Your task to perform on an android device: toggle notifications settings in the gmail app Image 0: 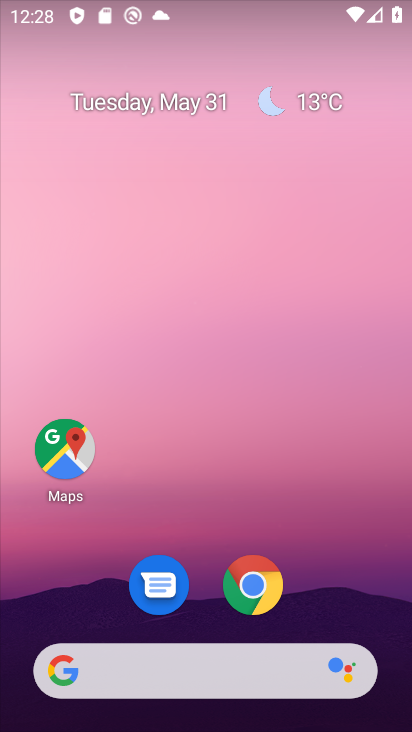
Step 0: drag from (259, 498) to (232, 56)
Your task to perform on an android device: toggle notifications settings in the gmail app Image 1: 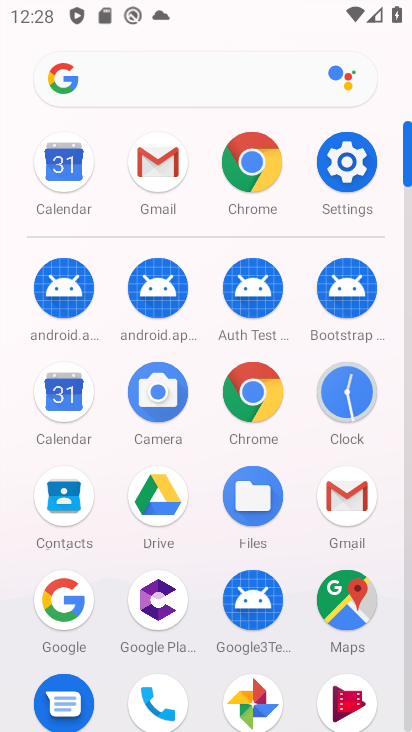
Step 1: click (170, 174)
Your task to perform on an android device: toggle notifications settings in the gmail app Image 2: 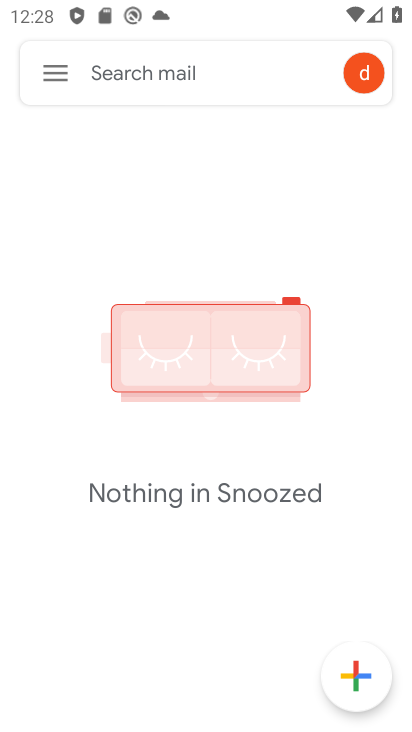
Step 2: click (62, 72)
Your task to perform on an android device: toggle notifications settings in the gmail app Image 3: 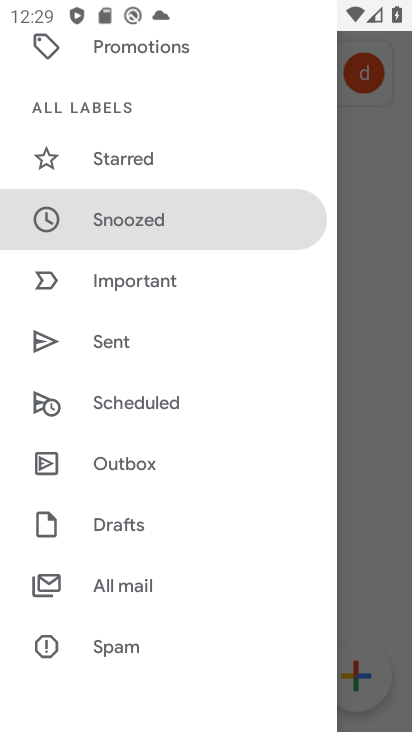
Step 3: drag from (144, 566) to (143, 317)
Your task to perform on an android device: toggle notifications settings in the gmail app Image 4: 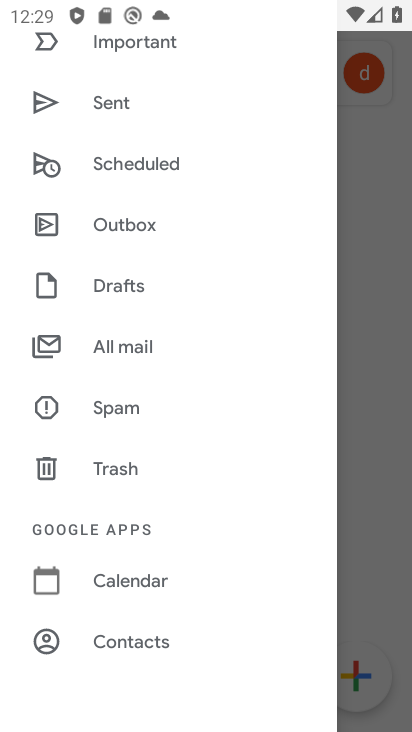
Step 4: drag from (155, 402) to (158, 252)
Your task to perform on an android device: toggle notifications settings in the gmail app Image 5: 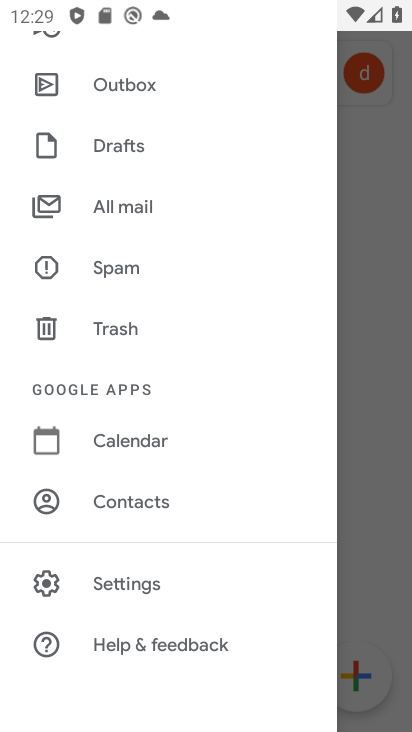
Step 5: click (175, 568)
Your task to perform on an android device: toggle notifications settings in the gmail app Image 6: 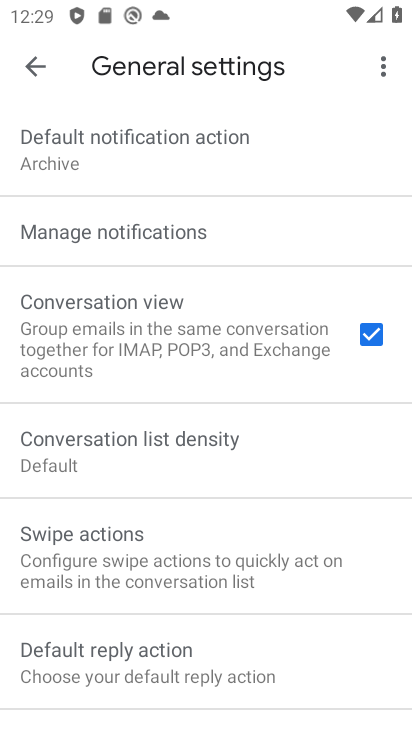
Step 6: click (228, 236)
Your task to perform on an android device: toggle notifications settings in the gmail app Image 7: 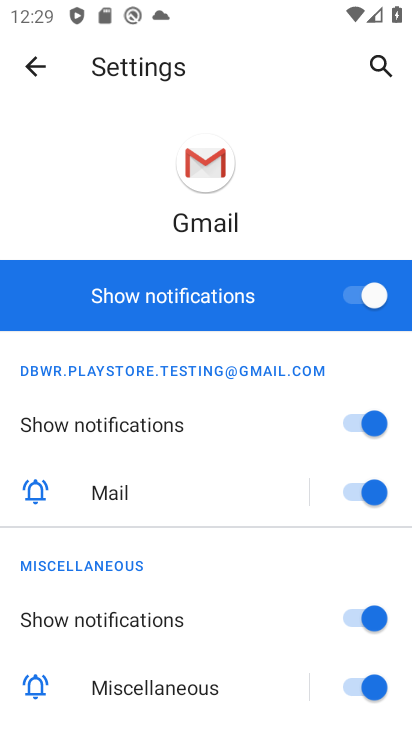
Step 7: click (357, 291)
Your task to perform on an android device: toggle notifications settings in the gmail app Image 8: 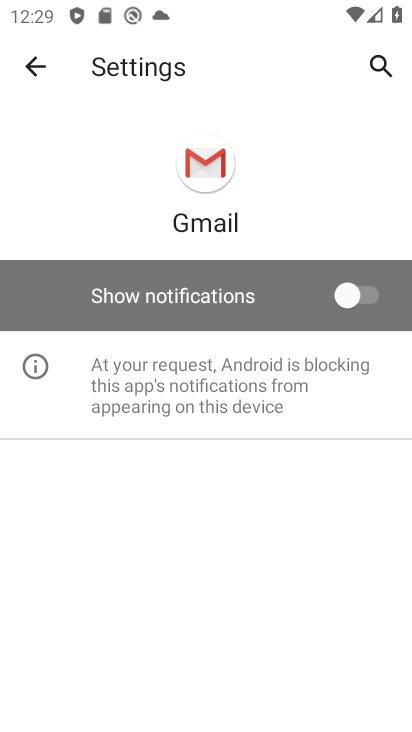
Step 8: task complete